Your task to perform on an android device: turn off picture-in-picture Image 0: 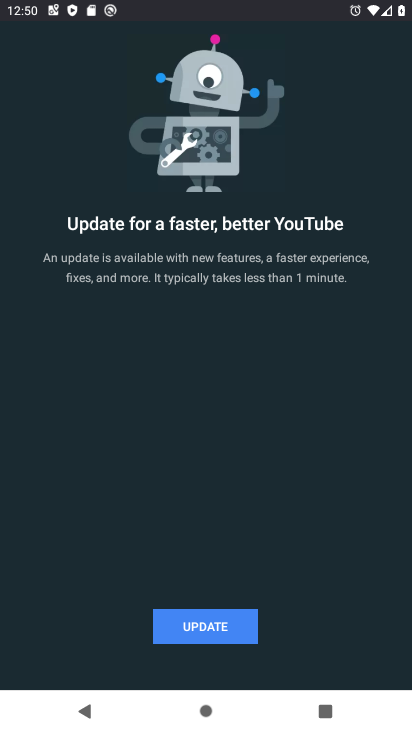
Step 0: press home button
Your task to perform on an android device: turn off picture-in-picture Image 1: 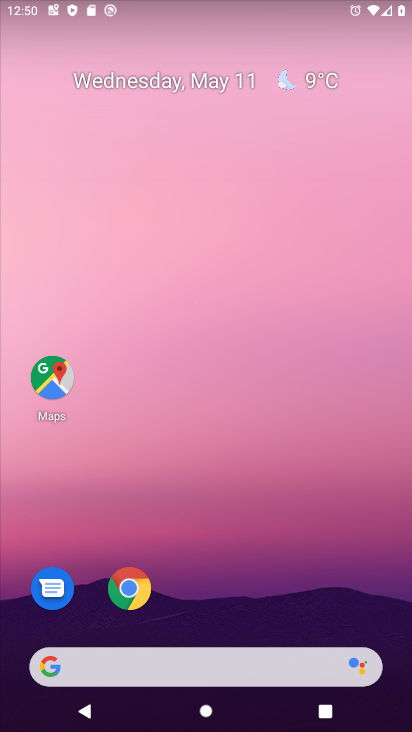
Step 1: click (132, 593)
Your task to perform on an android device: turn off picture-in-picture Image 2: 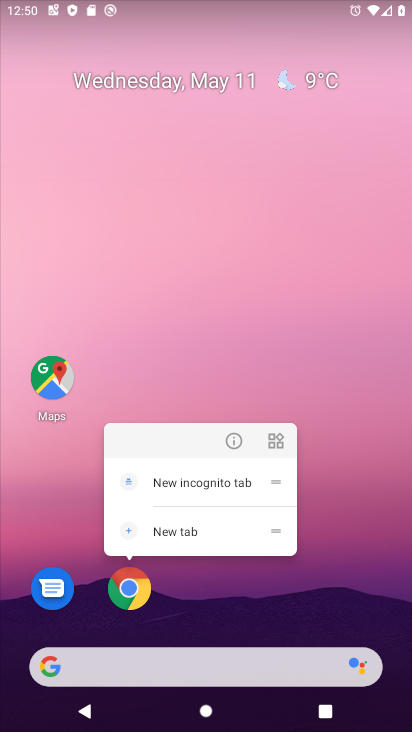
Step 2: click (231, 444)
Your task to perform on an android device: turn off picture-in-picture Image 3: 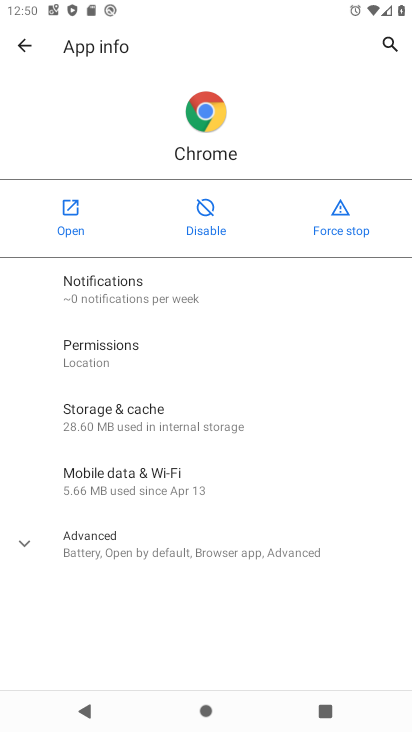
Step 3: click (22, 558)
Your task to perform on an android device: turn off picture-in-picture Image 4: 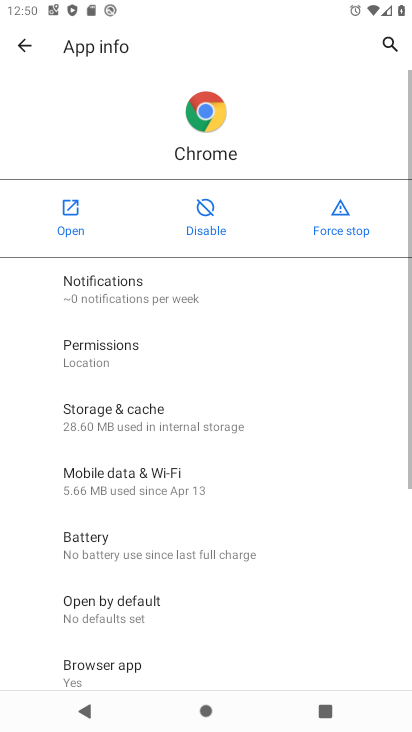
Step 4: drag from (156, 629) to (160, 281)
Your task to perform on an android device: turn off picture-in-picture Image 5: 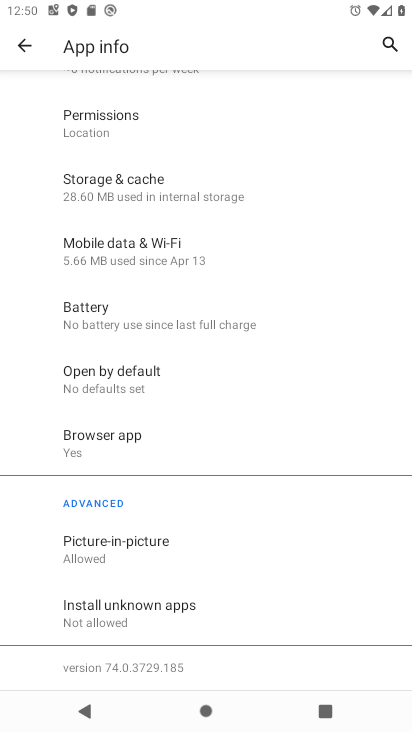
Step 5: click (103, 545)
Your task to perform on an android device: turn off picture-in-picture Image 6: 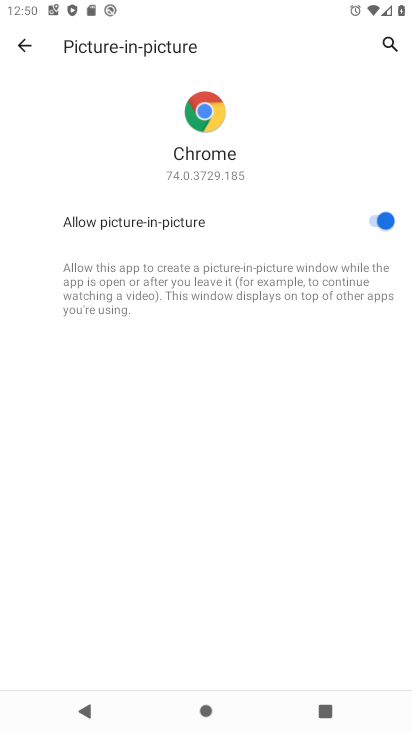
Step 6: click (384, 220)
Your task to perform on an android device: turn off picture-in-picture Image 7: 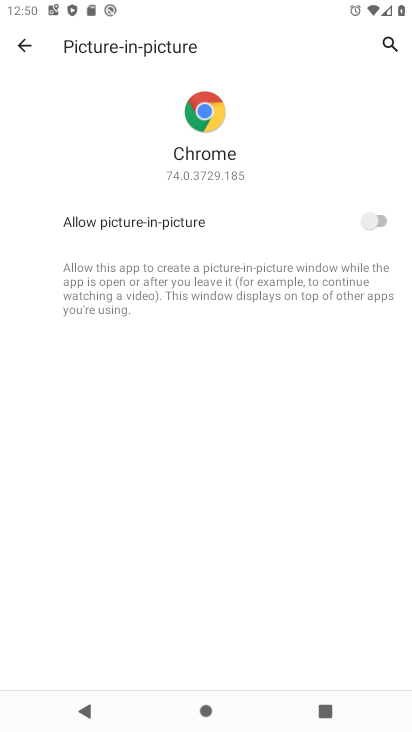
Step 7: task complete